Your task to perform on an android device: Open sound settings Image 0: 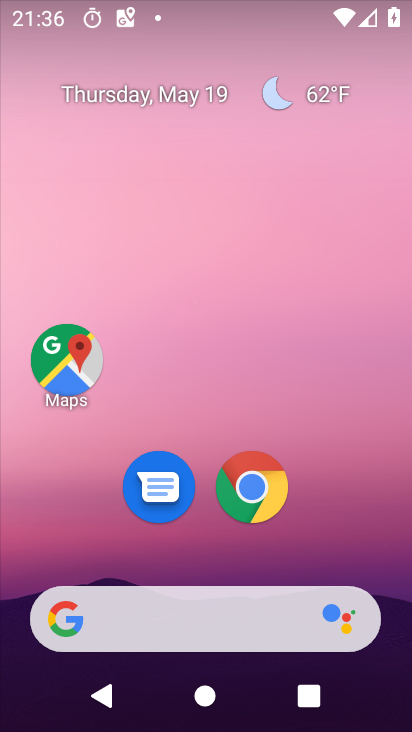
Step 0: drag from (331, 537) to (307, 48)
Your task to perform on an android device: Open sound settings Image 1: 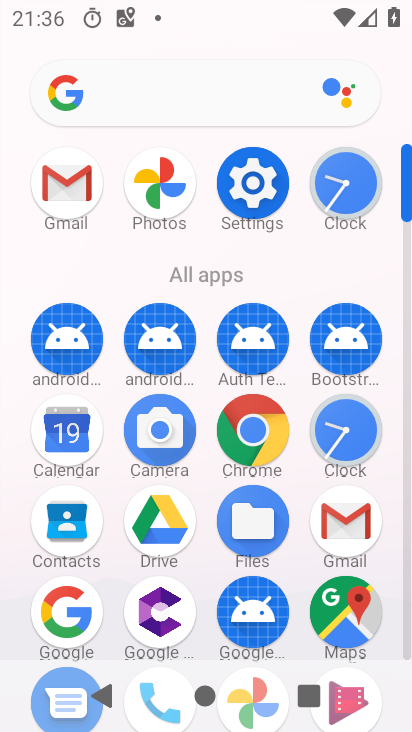
Step 1: click (257, 195)
Your task to perform on an android device: Open sound settings Image 2: 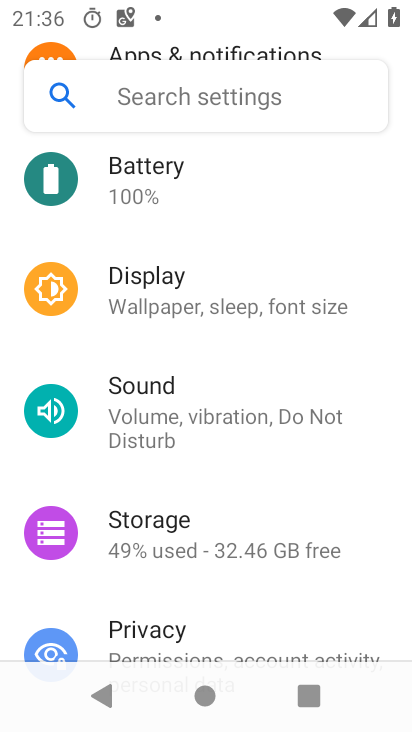
Step 2: click (248, 429)
Your task to perform on an android device: Open sound settings Image 3: 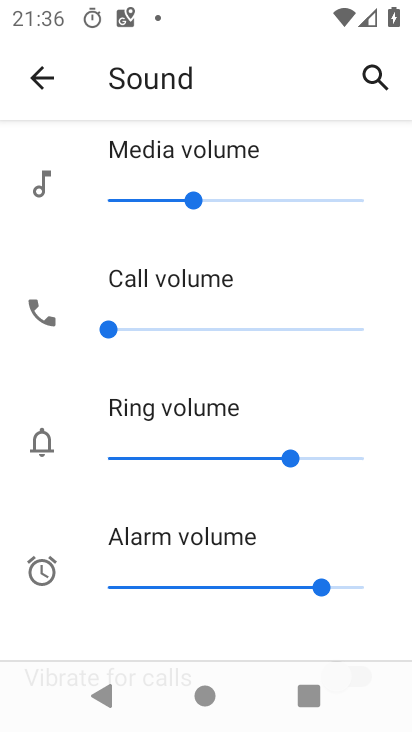
Step 3: task complete